Your task to perform on an android device: Open Google Maps and go to "Timeline" Image 0: 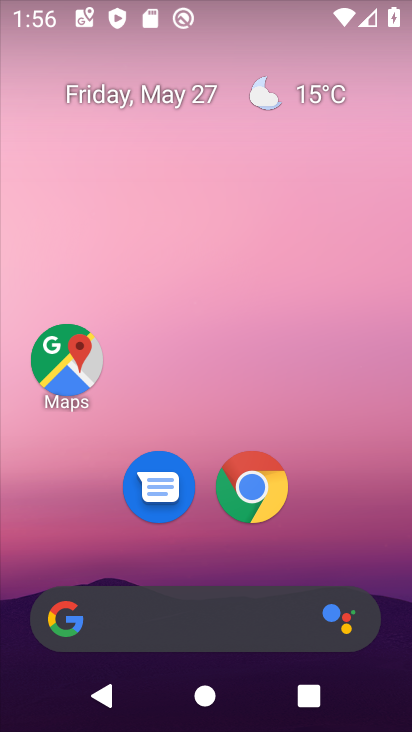
Step 0: drag from (178, 570) to (192, 437)
Your task to perform on an android device: Open Google Maps and go to "Timeline" Image 1: 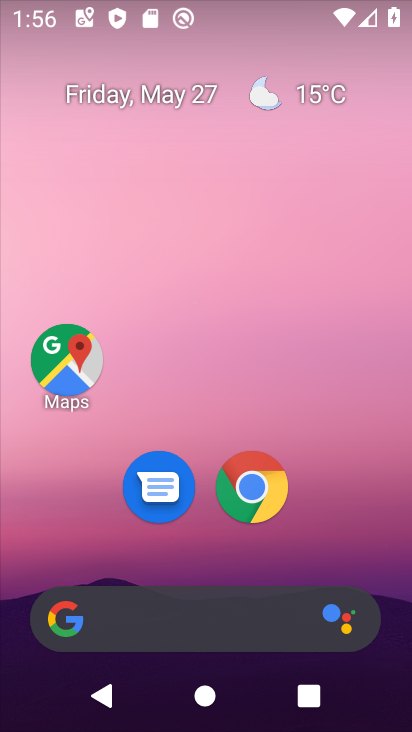
Step 1: click (67, 357)
Your task to perform on an android device: Open Google Maps and go to "Timeline" Image 2: 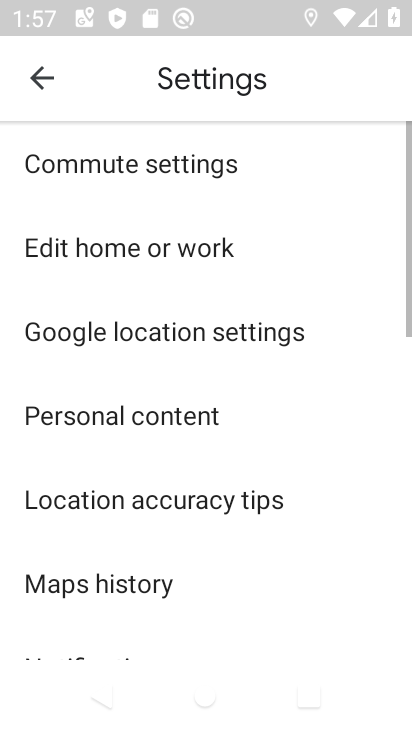
Step 2: click (46, 87)
Your task to perform on an android device: Open Google Maps and go to "Timeline" Image 3: 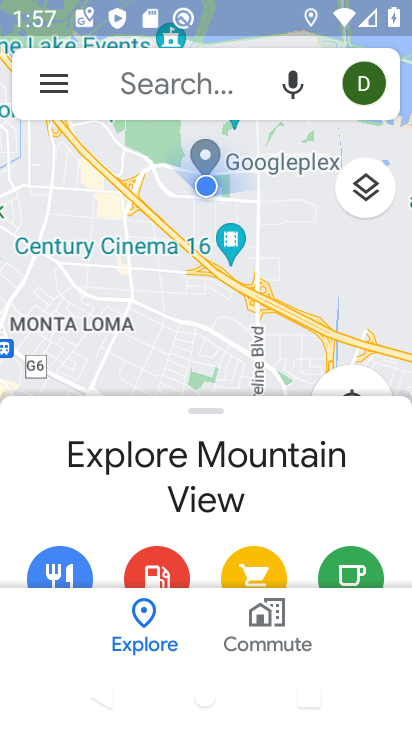
Step 3: click (46, 87)
Your task to perform on an android device: Open Google Maps and go to "Timeline" Image 4: 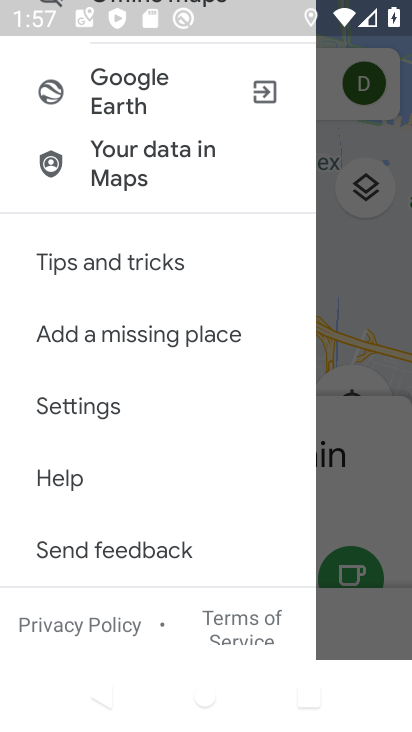
Step 4: drag from (168, 443) to (182, 179)
Your task to perform on an android device: Open Google Maps and go to "Timeline" Image 5: 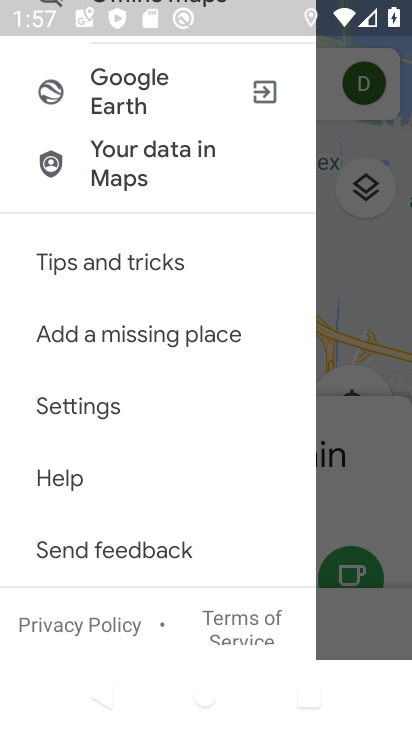
Step 5: drag from (146, 302) to (136, 666)
Your task to perform on an android device: Open Google Maps and go to "Timeline" Image 6: 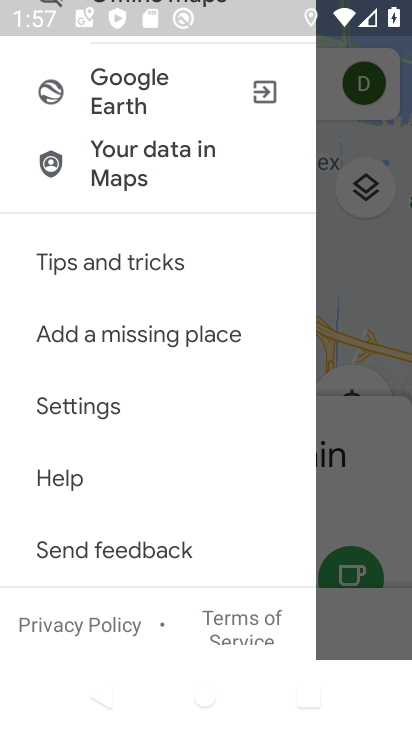
Step 6: drag from (158, 114) to (173, 592)
Your task to perform on an android device: Open Google Maps and go to "Timeline" Image 7: 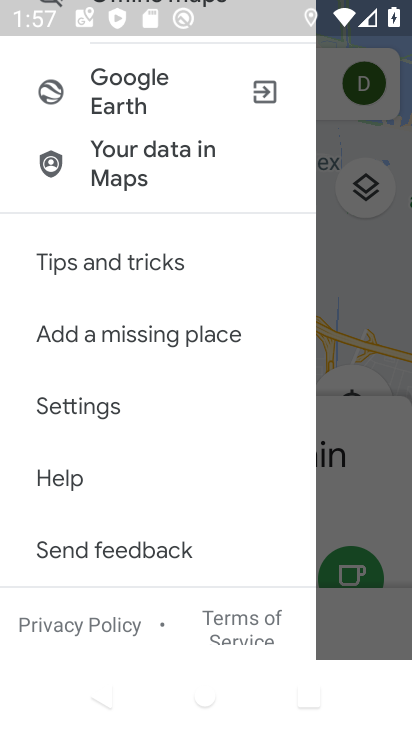
Step 7: drag from (140, 56) to (112, 614)
Your task to perform on an android device: Open Google Maps and go to "Timeline" Image 8: 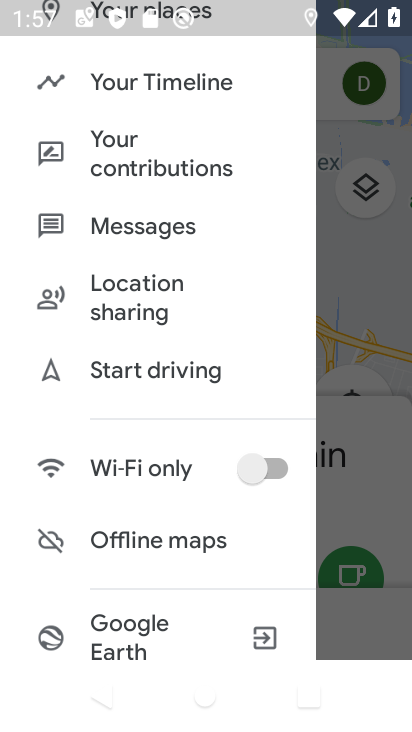
Step 8: click (114, 79)
Your task to perform on an android device: Open Google Maps and go to "Timeline" Image 9: 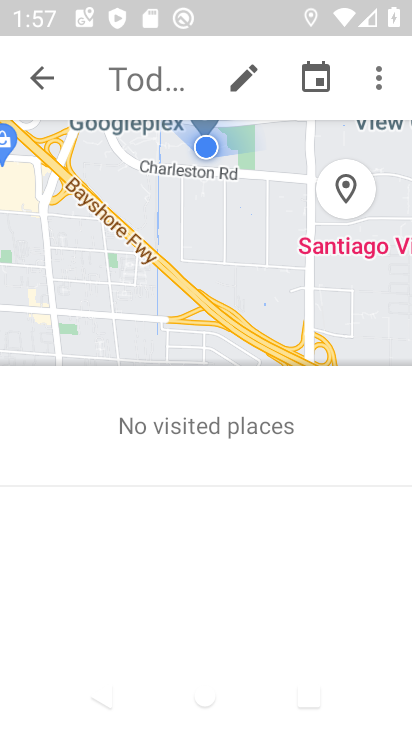
Step 9: task complete